Your task to perform on an android device: When is my next meeting? Image 0: 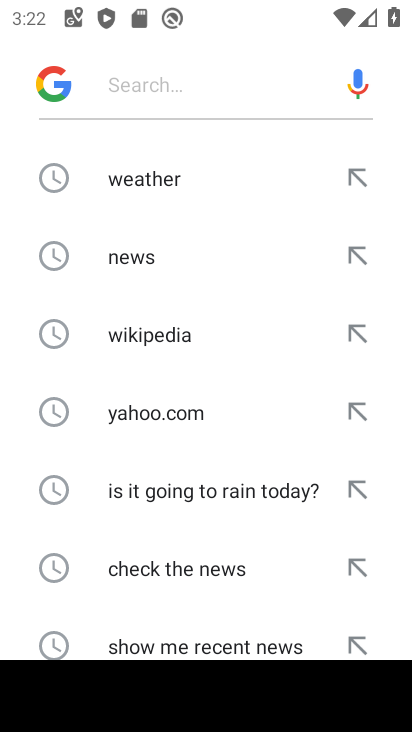
Step 0: press home button
Your task to perform on an android device: When is my next meeting? Image 1: 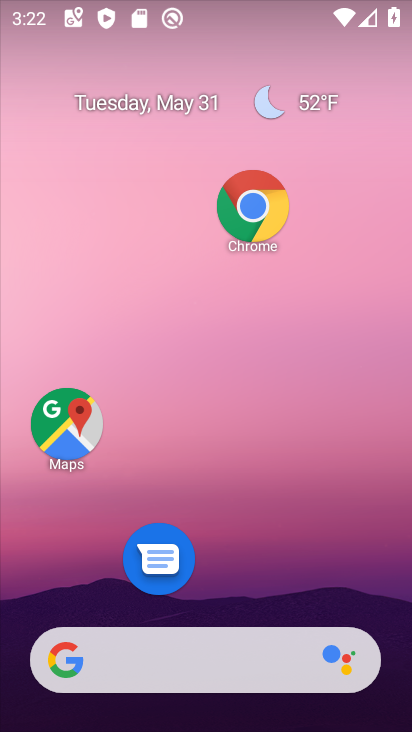
Step 1: drag from (245, 584) to (211, 232)
Your task to perform on an android device: When is my next meeting? Image 2: 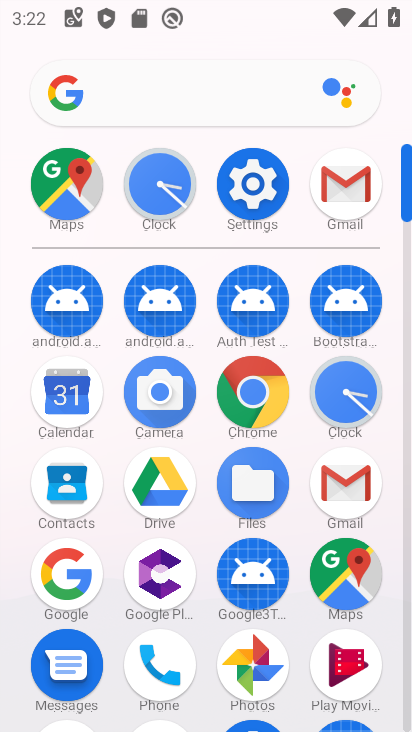
Step 2: click (62, 419)
Your task to perform on an android device: When is my next meeting? Image 3: 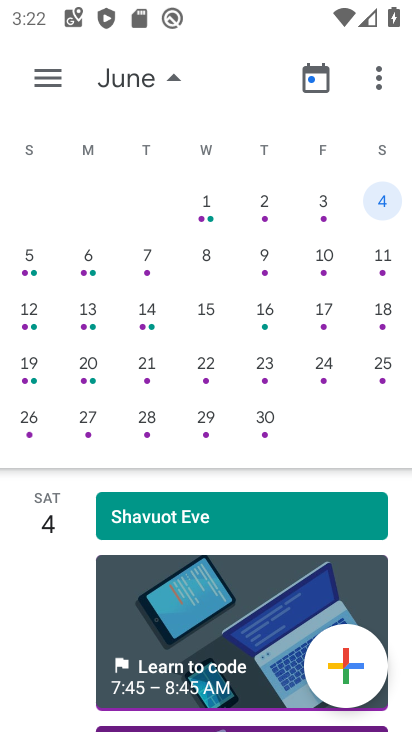
Step 3: drag from (178, 598) to (194, 381)
Your task to perform on an android device: When is my next meeting? Image 4: 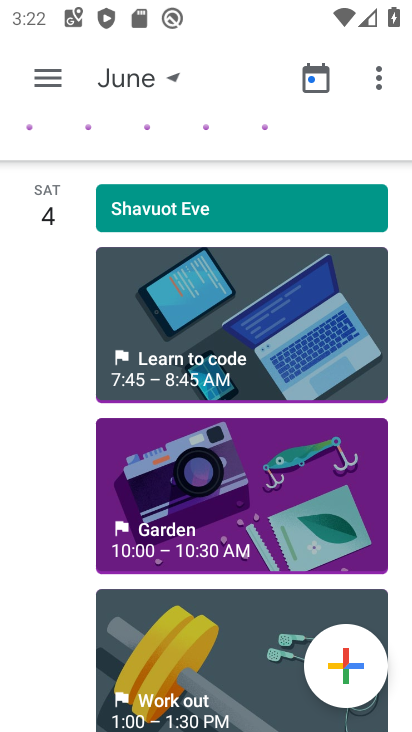
Step 4: drag from (201, 625) to (210, 299)
Your task to perform on an android device: When is my next meeting? Image 5: 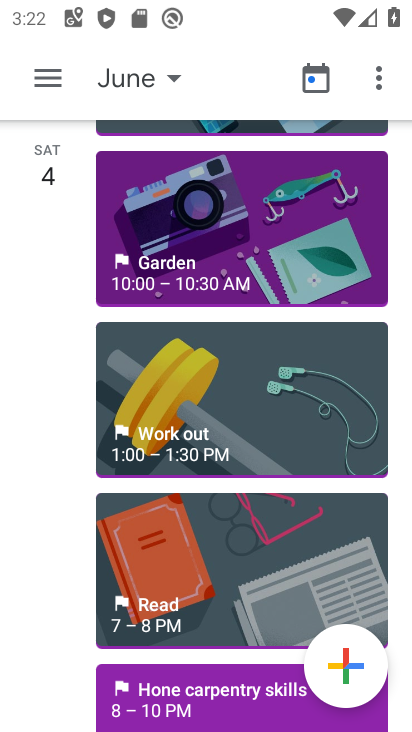
Step 5: drag from (216, 542) to (232, 260)
Your task to perform on an android device: When is my next meeting? Image 6: 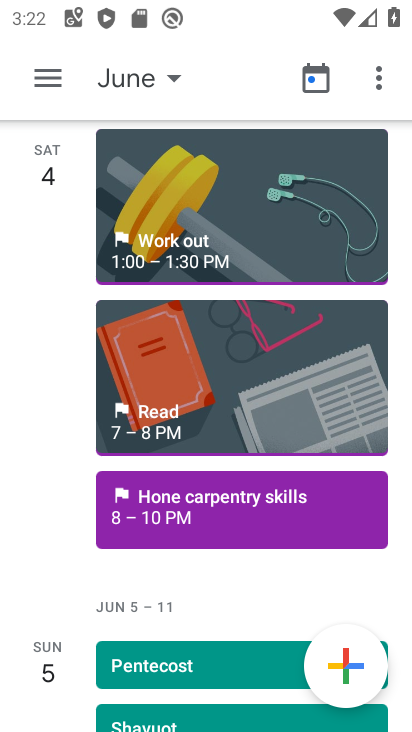
Step 6: drag from (238, 546) to (244, 301)
Your task to perform on an android device: When is my next meeting? Image 7: 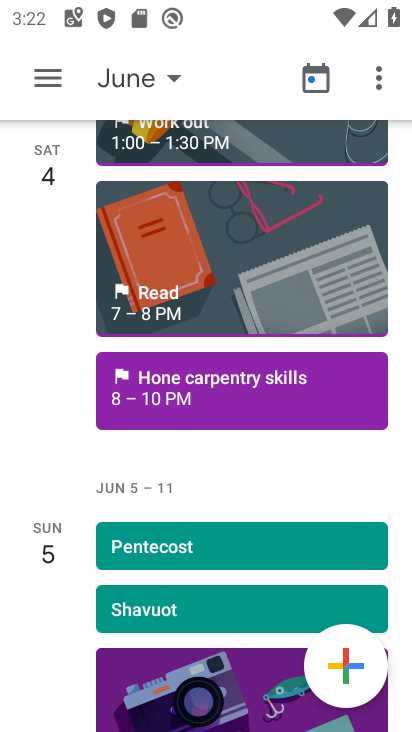
Step 7: drag from (234, 424) to (234, 318)
Your task to perform on an android device: When is my next meeting? Image 8: 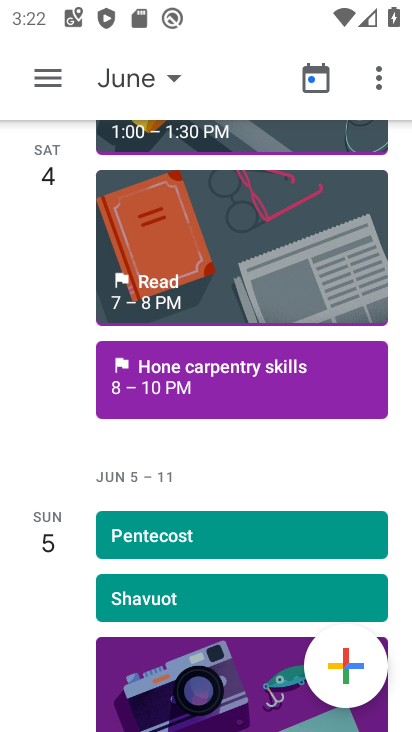
Step 8: drag from (198, 490) to (201, 271)
Your task to perform on an android device: When is my next meeting? Image 9: 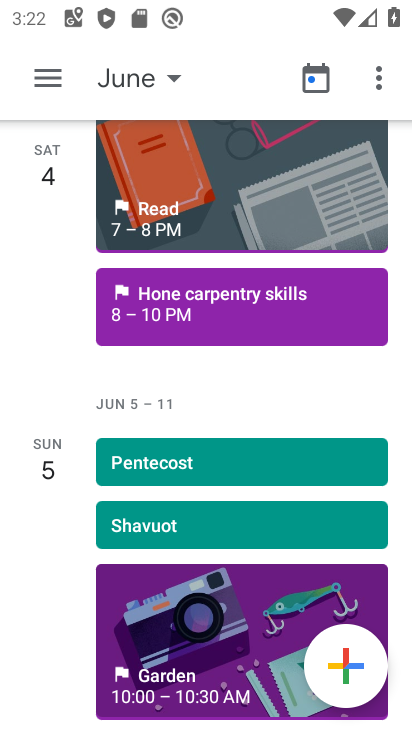
Step 9: drag from (156, 480) to (170, 294)
Your task to perform on an android device: When is my next meeting? Image 10: 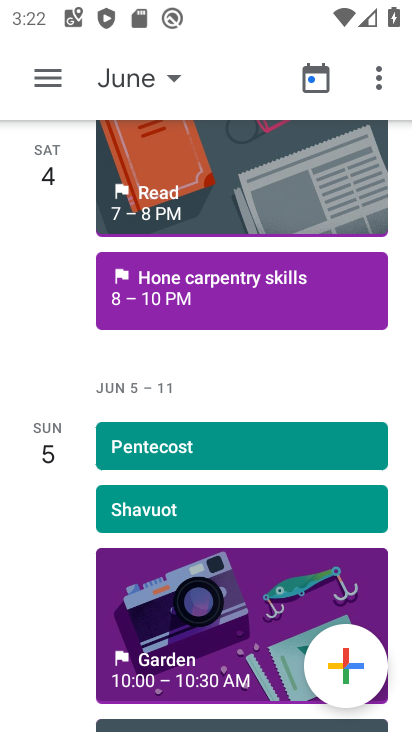
Step 10: click (198, 314)
Your task to perform on an android device: When is my next meeting? Image 11: 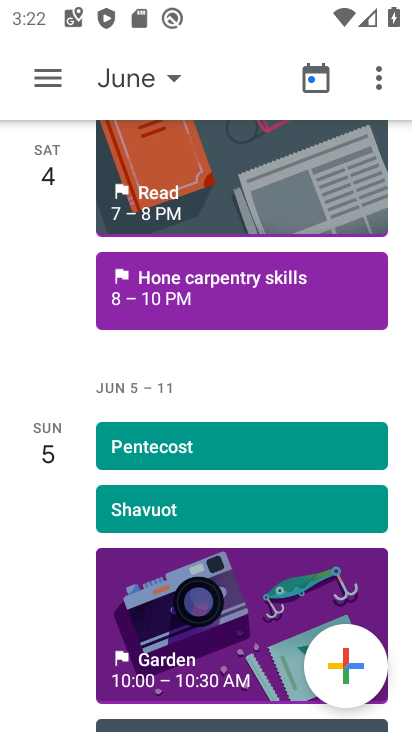
Step 11: task complete